Your task to perform on an android device: turn on location history Image 0: 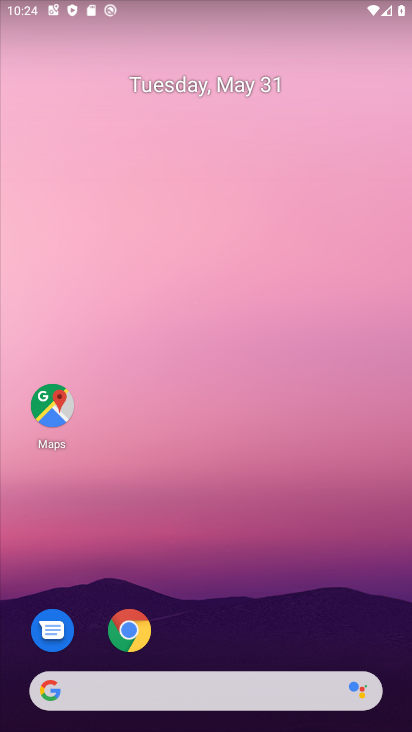
Step 0: press home button
Your task to perform on an android device: turn on location history Image 1: 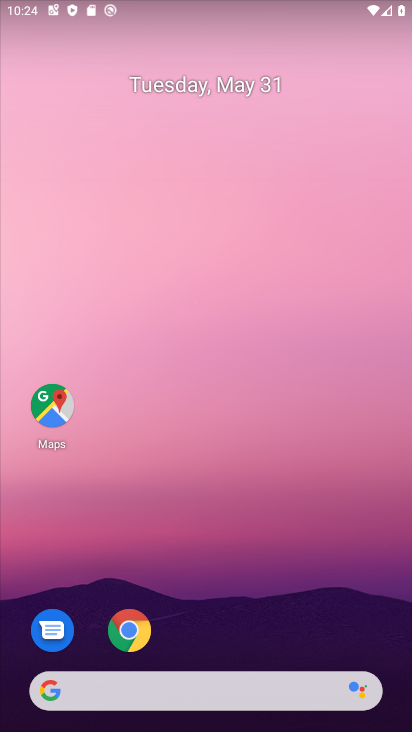
Step 1: drag from (269, 625) to (237, 94)
Your task to perform on an android device: turn on location history Image 2: 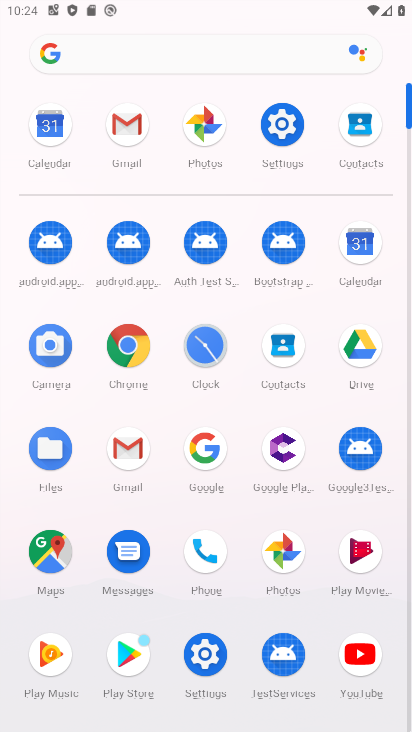
Step 2: click (293, 130)
Your task to perform on an android device: turn on location history Image 3: 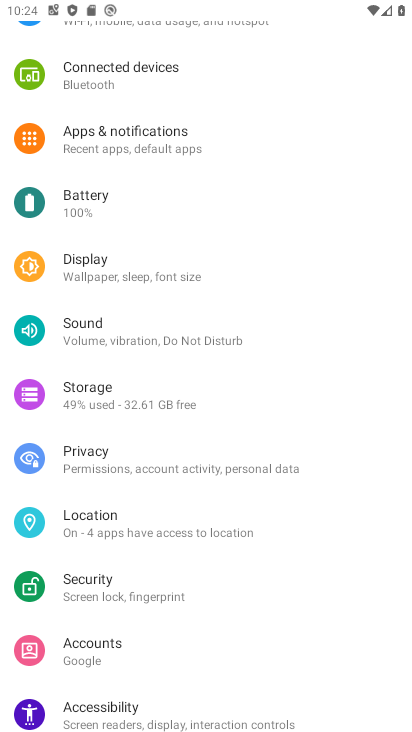
Step 3: click (186, 540)
Your task to perform on an android device: turn on location history Image 4: 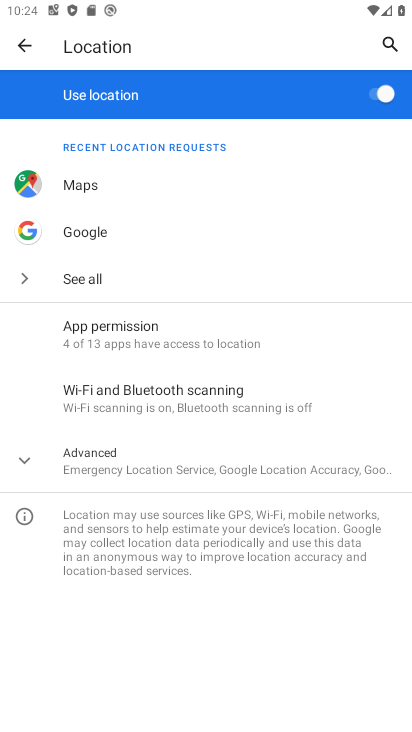
Step 4: click (63, 448)
Your task to perform on an android device: turn on location history Image 5: 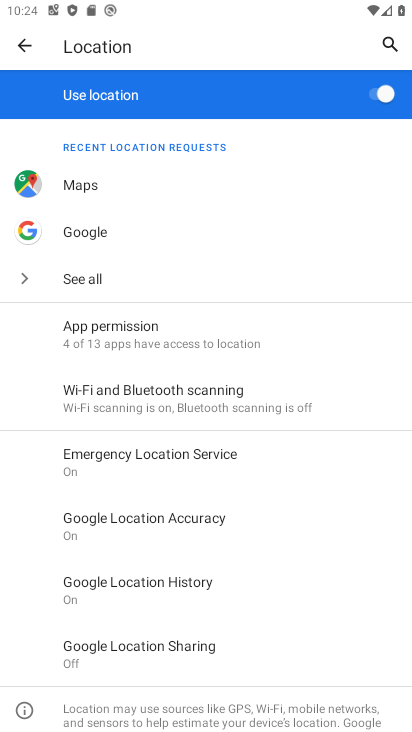
Step 5: click (168, 588)
Your task to perform on an android device: turn on location history Image 6: 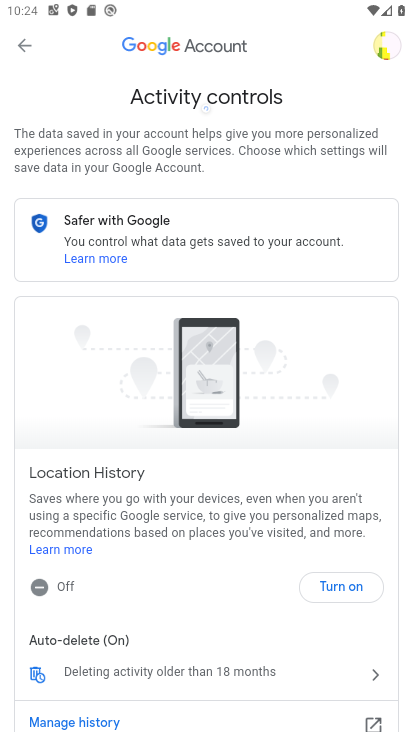
Step 6: task complete